Your task to perform on an android device: visit the assistant section in the google photos Image 0: 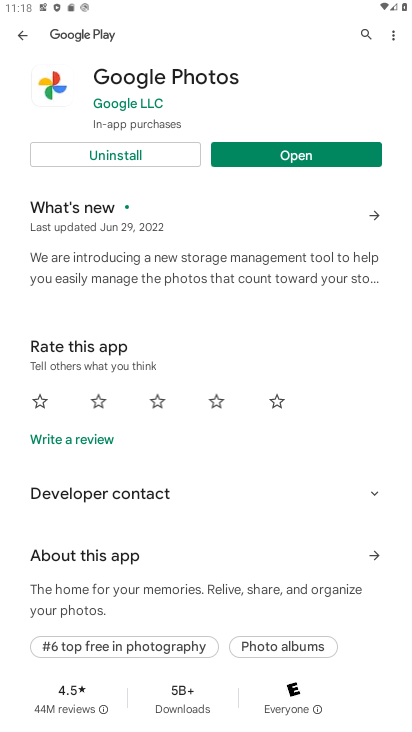
Step 0: click (302, 147)
Your task to perform on an android device: visit the assistant section in the google photos Image 1: 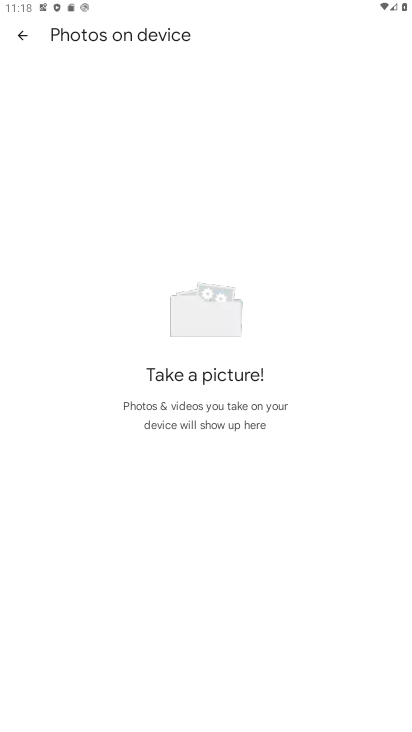
Step 1: click (23, 39)
Your task to perform on an android device: visit the assistant section in the google photos Image 2: 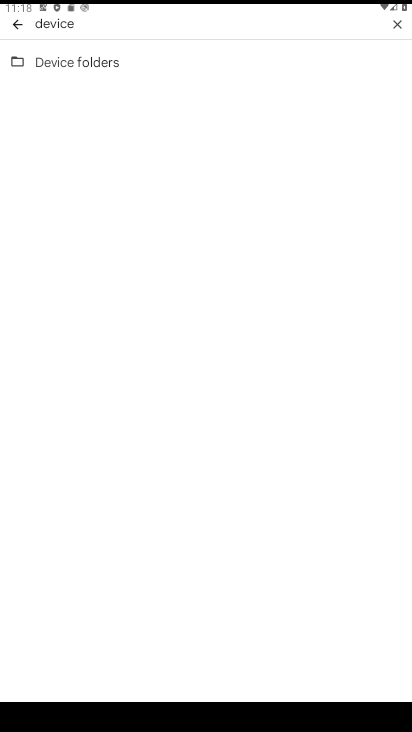
Step 2: click (403, 23)
Your task to perform on an android device: visit the assistant section in the google photos Image 3: 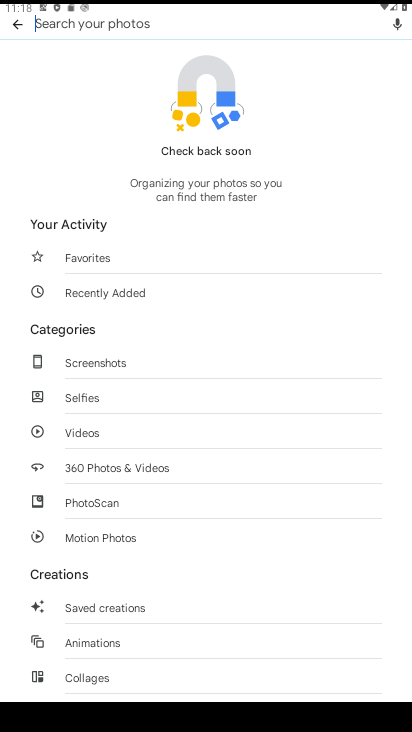
Step 3: type "assistant"
Your task to perform on an android device: visit the assistant section in the google photos Image 4: 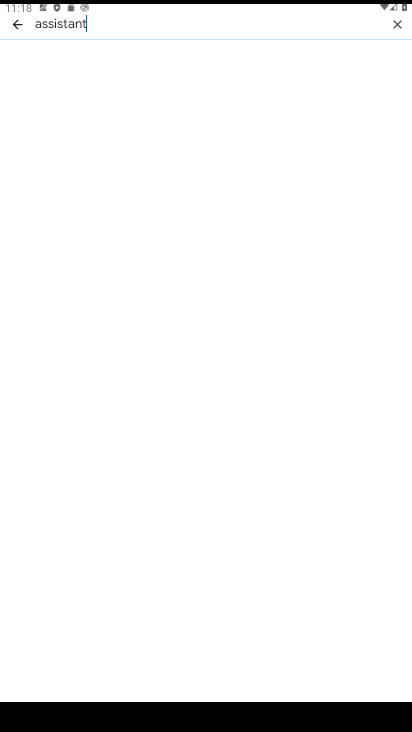
Step 4: task complete